Your task to perform on an android device: Is it going to rain today? Image 0: 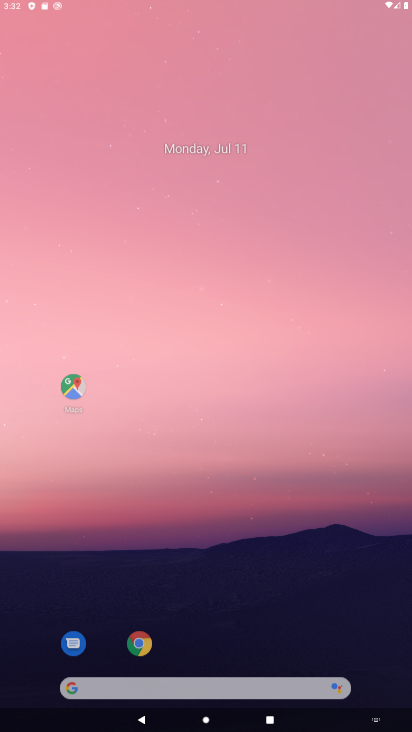
Step 0: click (351, 177)
Your task to perform on an android device: Is it going to rain today? Image 1: 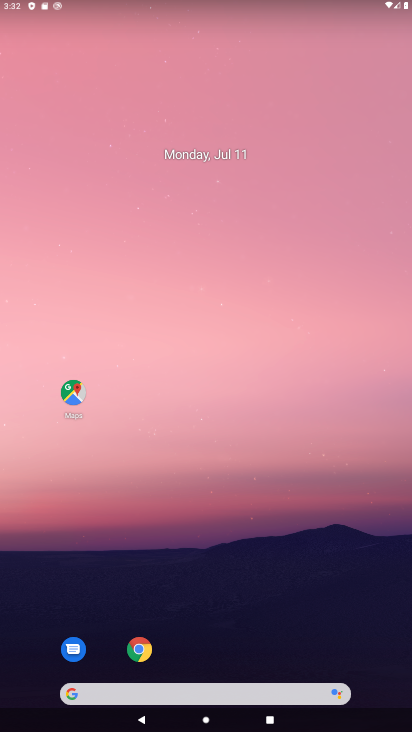
Step 1: drag from (201, 549) to (209, 325)
Your task to perform on an android device: Is it going to rain today? Image 2: 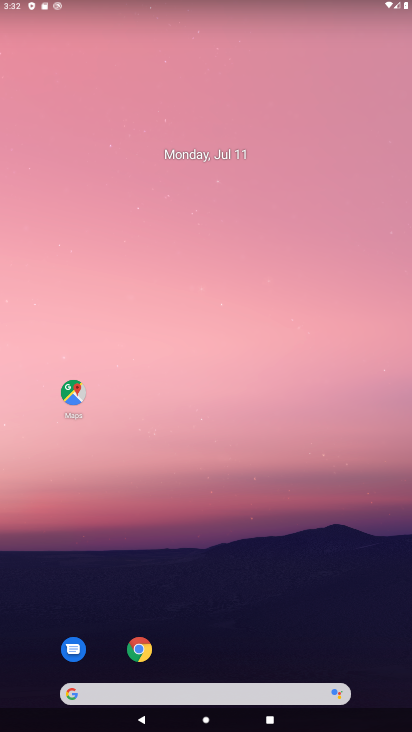
Step 2: drag from (214, 654) to (320, 119)
Your task to perform on an android device: Is it going to rain today? Image 3: 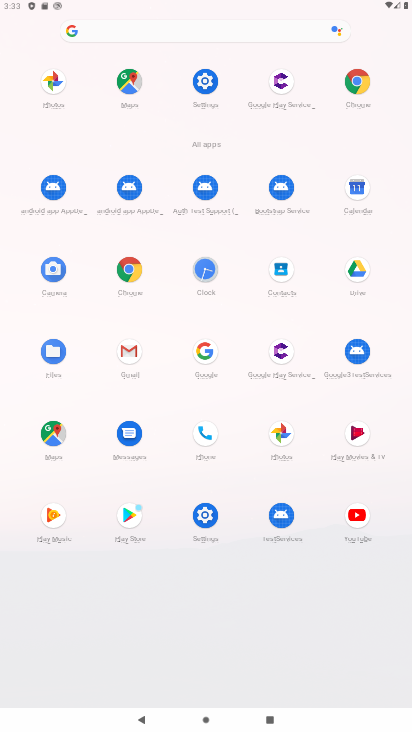
Step 3: click (191, 30)
Your task to perform on an android device: Is it going to rain today? Image 4: 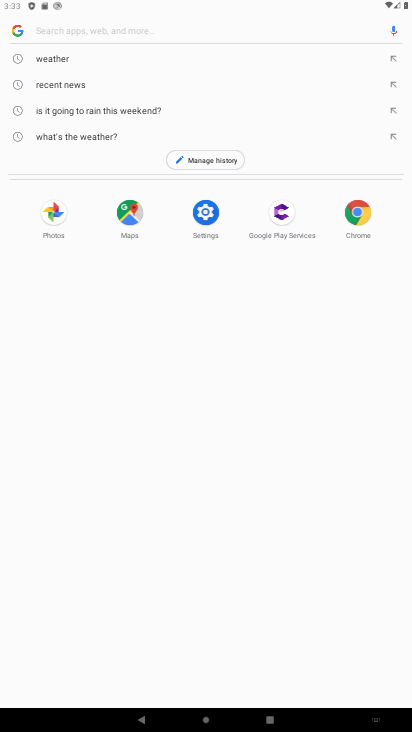
Step 4: drag from (282, 412) to (311, 201)
Your task to perform on an android device: Is it going to rain today? Image 5: 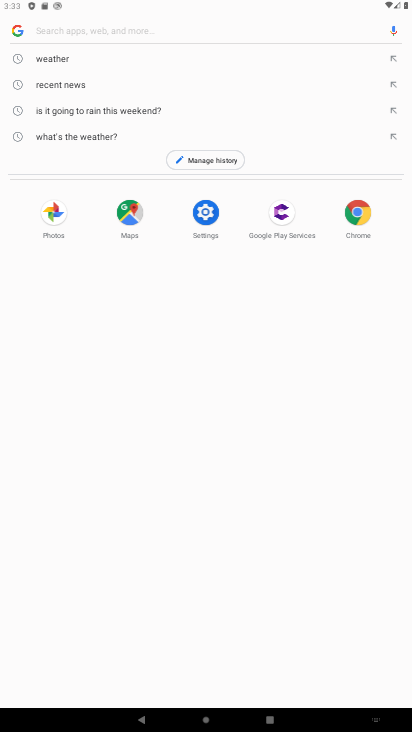
Step 5: click (67, 43)
Your task to perform on an android device: Is it going to rain today? Image 6: 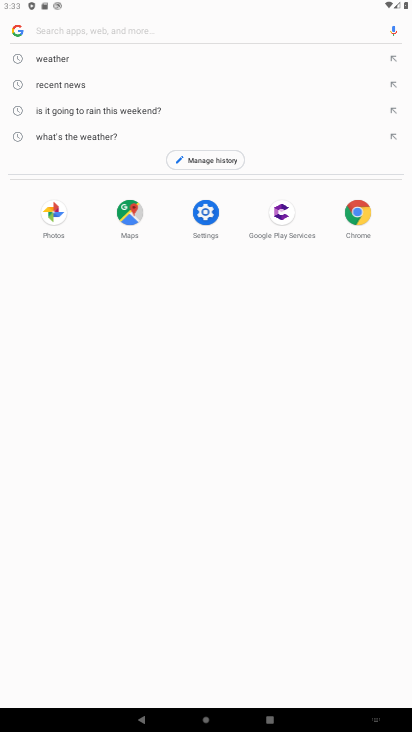
Step 6: type "rain today"
Your task to perform on an android device: Is it going to rain today? Image 7: 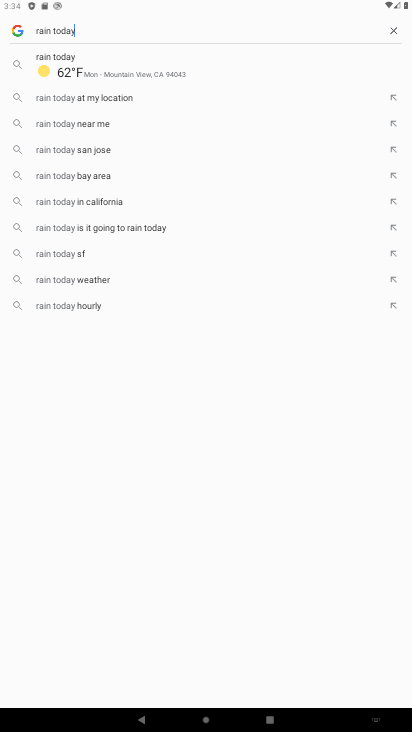
Step 7: click (61, 72)
Your task to perform on an android device: Is it going to rain today? Image 8: 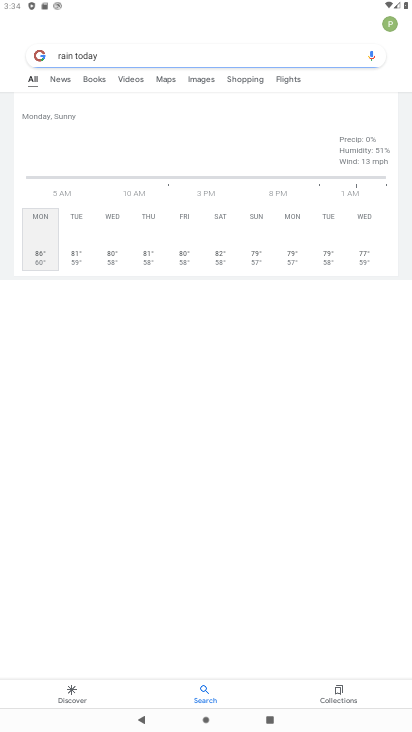
Step 8: task complete